Your task to perform on an android device: Show me recent news Image 0: 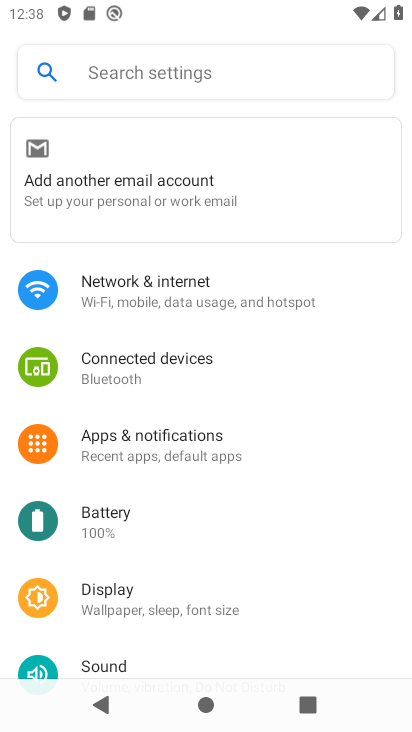
Step 0: press home button
Your task to perform on an android device: Show me recent news Image 1: 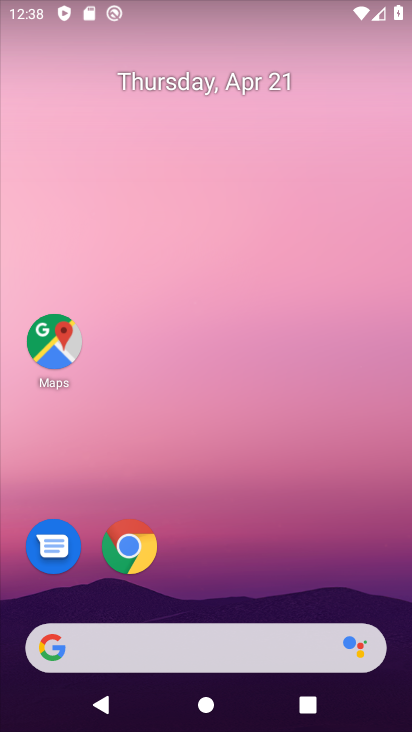
Step 1: task complete